Your task to perform on an android device: check data usage Image 0: 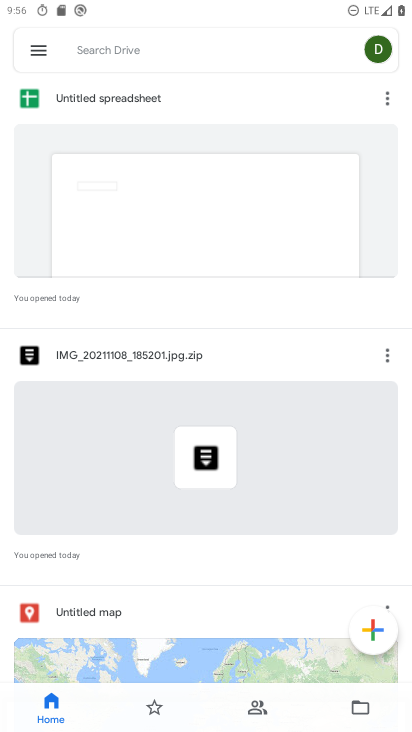
Step 0: drag from (170, 566) to (378, 134)
Your task to perform on an android device: check data usage Image 1: 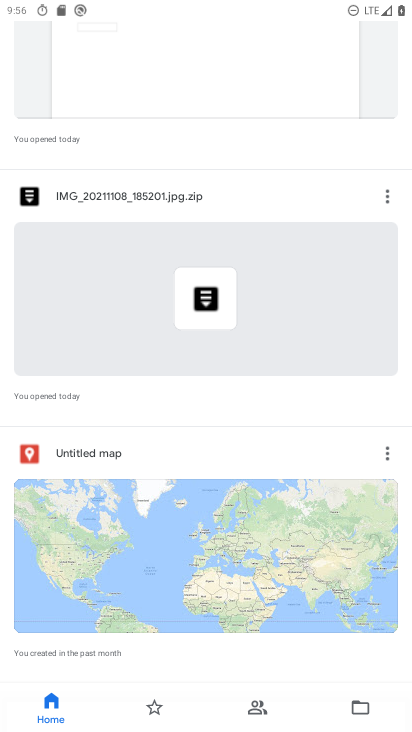
Step 1: drag from (244, 502) to (296, 178)
Your task to perform on an android device: check data usage Image 2: 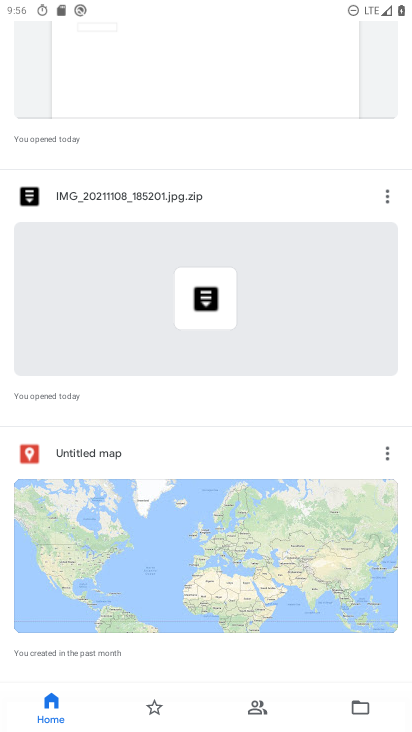
Step 2: drag from (304, 151) to (392, 576)
Your task to perform on an android device: check data usage Image 3: 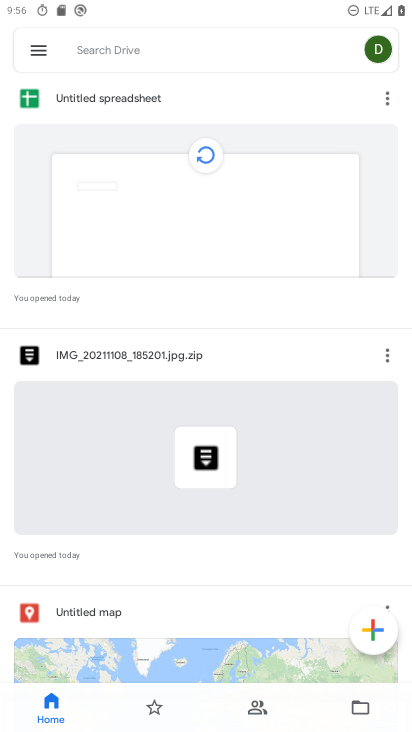
Step 3: press home button
Your task to perform on an android device: check data usage Image 4: 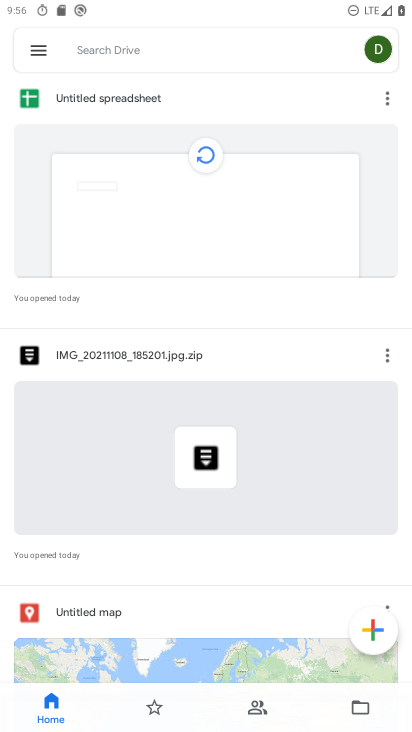
Step 4: drag from (392, 576) to (406, 370)
Your task to perform on an android device: check data usage Image 5: 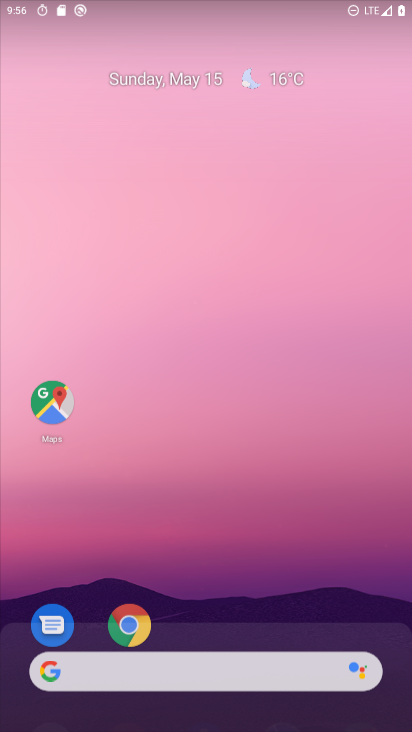
Step 5: drag from (222, 640) to (277, 176)
Your task to perform on an android device: check data usage Image 6: 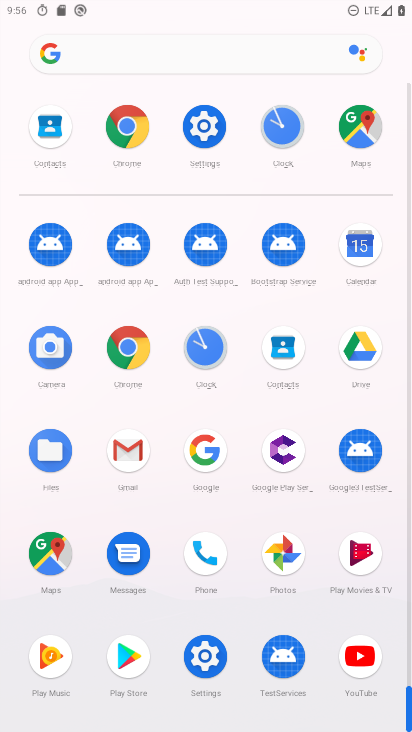
Step 6: click (211, 653)
Your task to perform on an android device: check data usage Image 7: 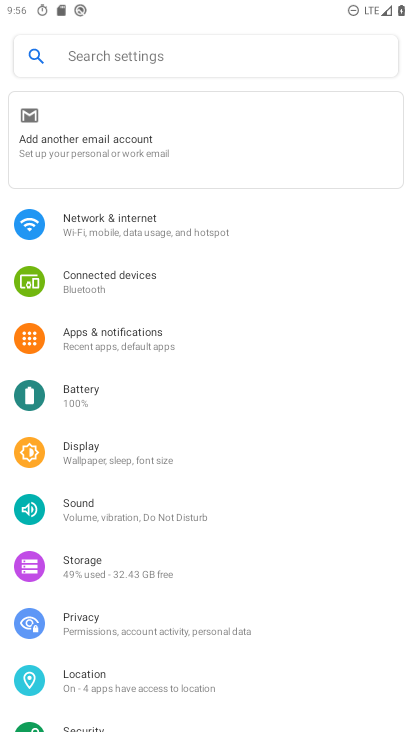
Step 7: click (148, 213)
Your task to perform on an android device: check data usage Image 8: 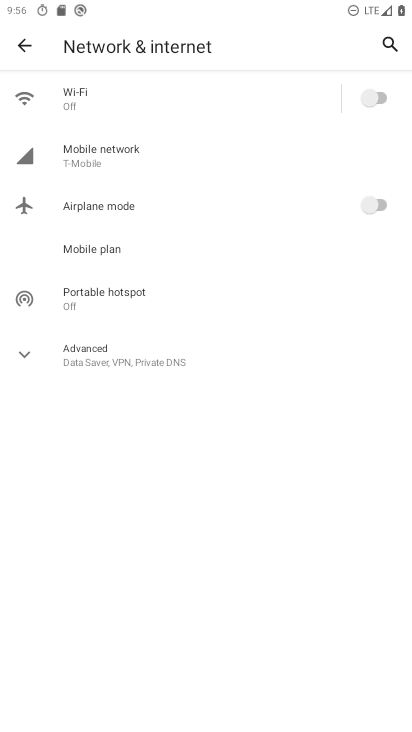
Step 8: click (160, 144)
Your task to perform on an android device: check data usage Image 9: 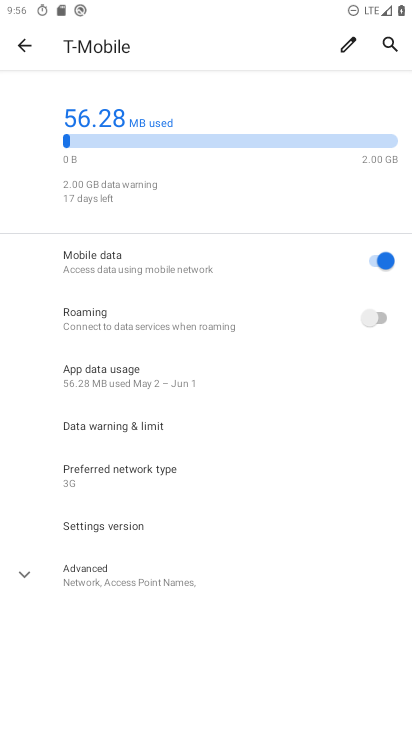
Step 9: click (178, 181)
Your task to perform on an android device: check data usage Image 10: 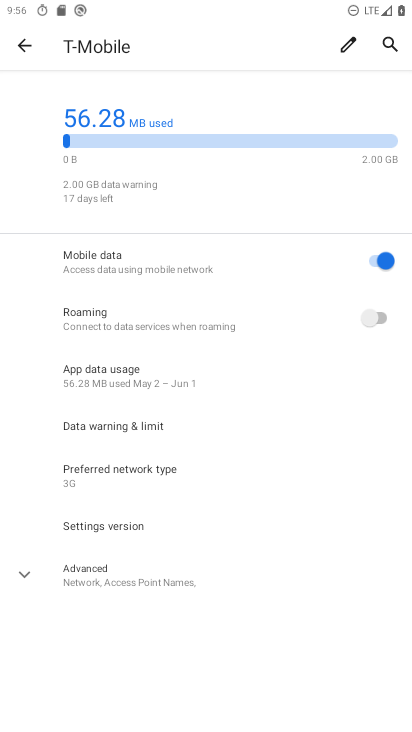
Step 10: task complete